Your task to perform on an android device: Search for the best rated kitchen reno kits on Lowes.com Image 0: 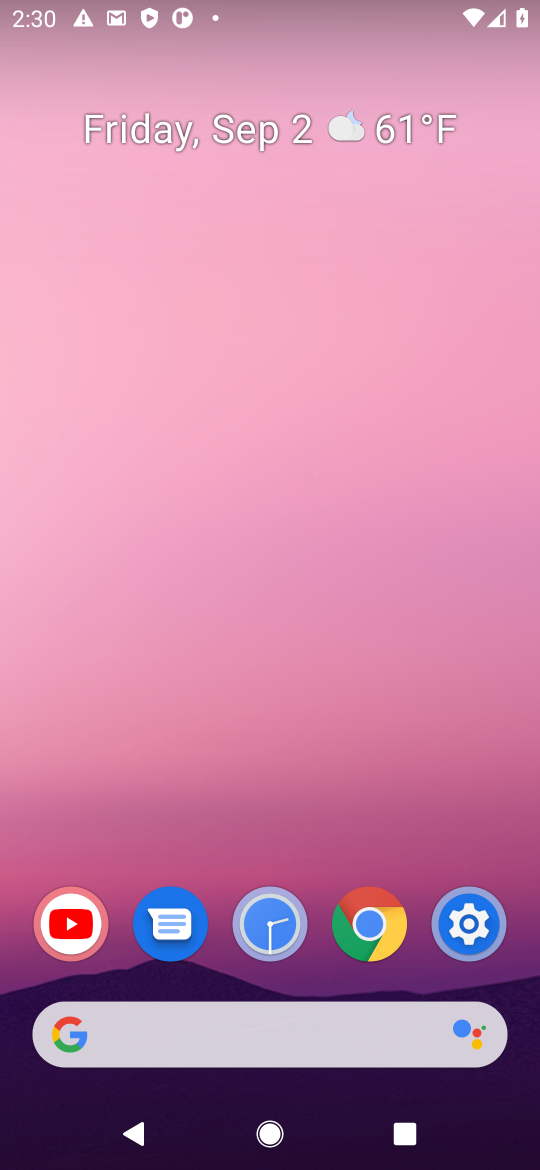
Step 0: click (378, 1037)
Your task to perform on an android device: Search for the best rated kitchen reno kits on Lowes.com Image 1: 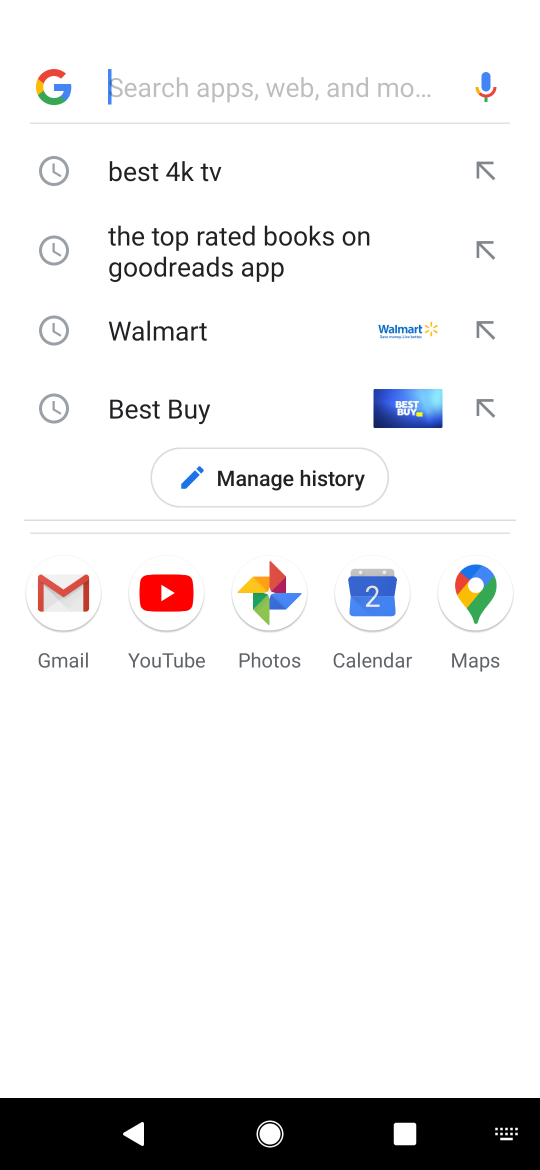
Step 1: press enter
Your task to perform on an android device: Search for the best rated kitchen reno kits on Lowes.com Image 2: 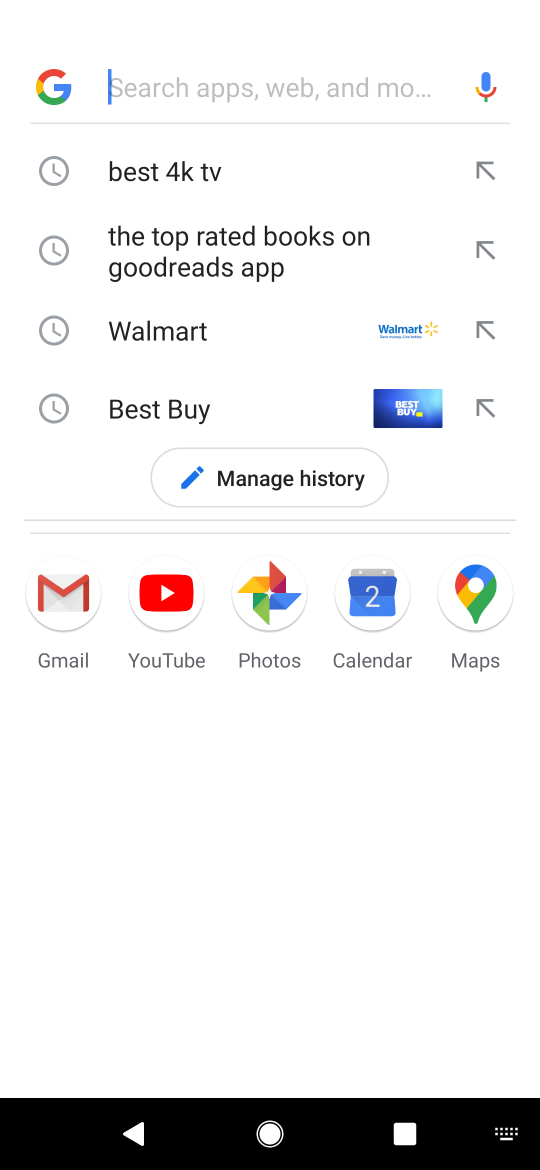
Step 2: type "lowes.com"
Your task to perform on an android device: Search for the best rated kitchen reno kits on Lowes.com Image 3: 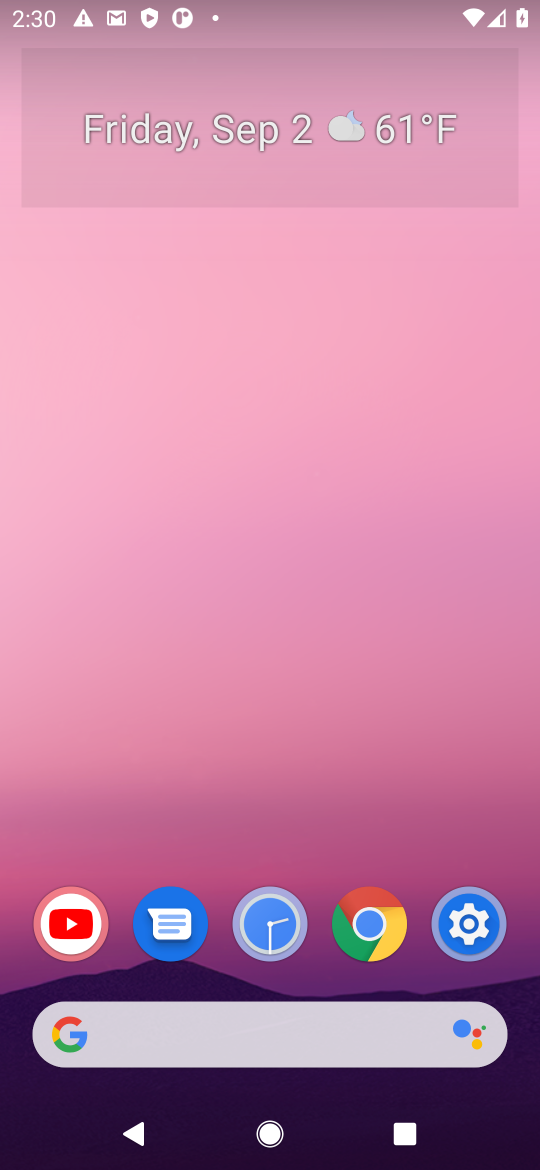
Step 3: click (397, 1046)
Your task to perform on an android device: Search for the best rated kitchen reno kits on Lowes.com Image 4: 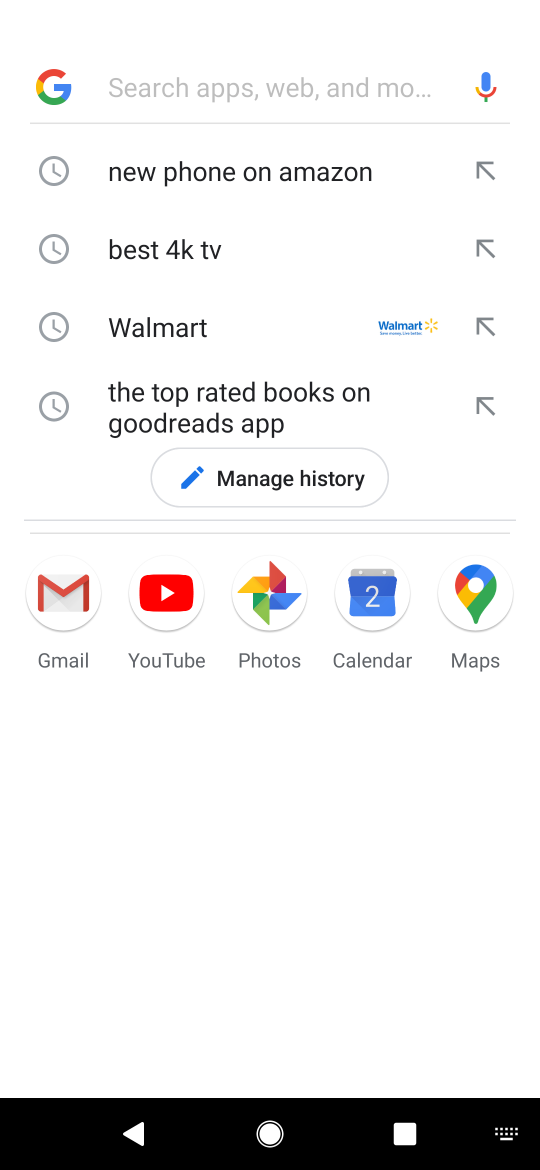
Step 4: press enter
Your task to perform on an android device: Search for the best rated kitchen reno kits on Lowes.com Image 5: 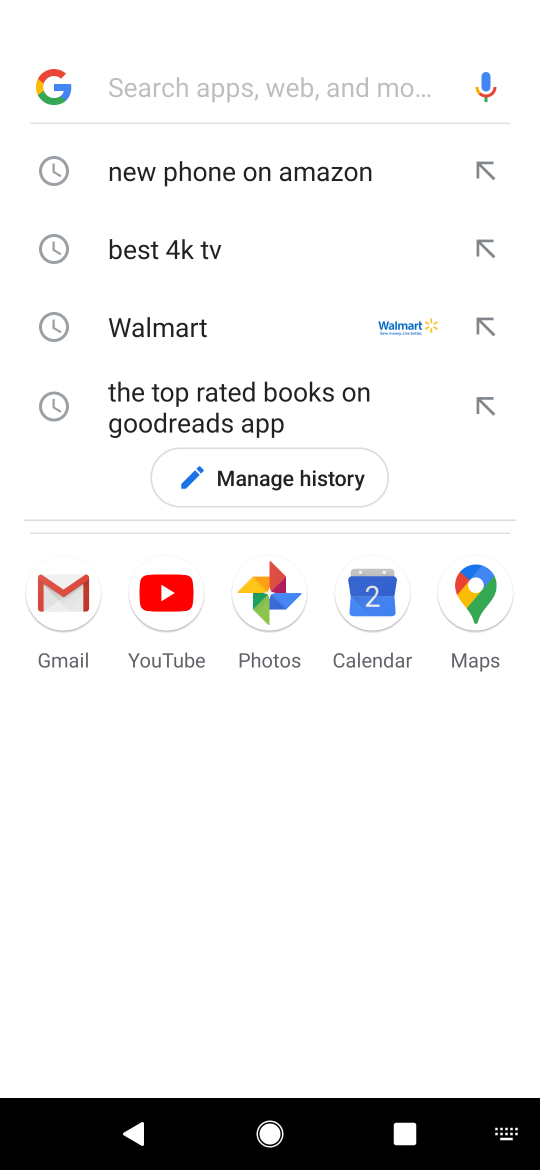
Step 5: type "lowes.com"
Your task to perform on an android device: Search for the best rated kitchen reno kits on Lowes.com Image 6: 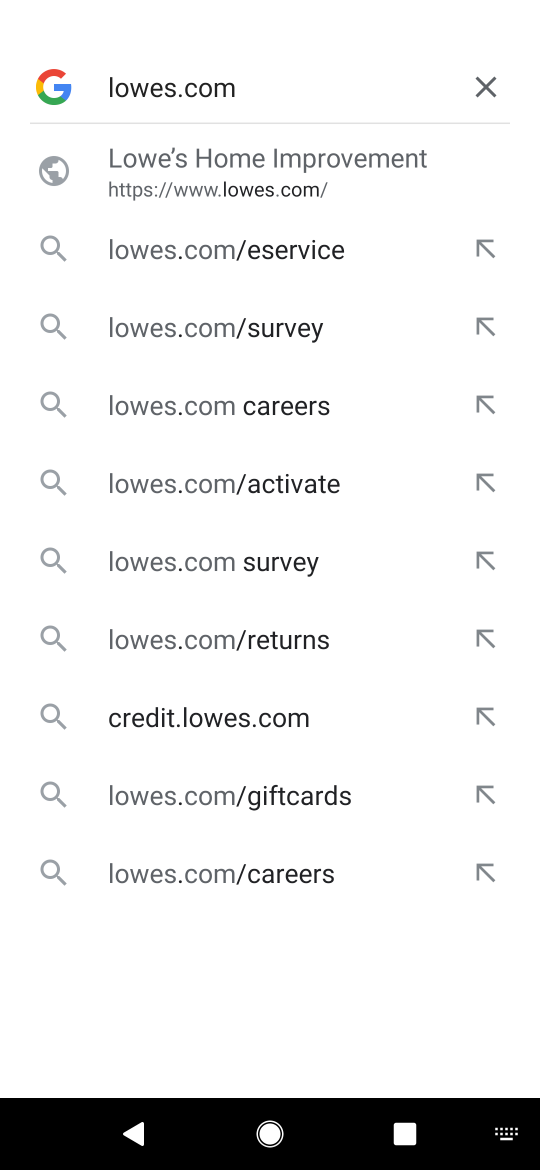
Step 6: click (265, 175)
Your task to perform on an android device: Search for the best rated kitchen reno kits on Lowes.com Image 7: 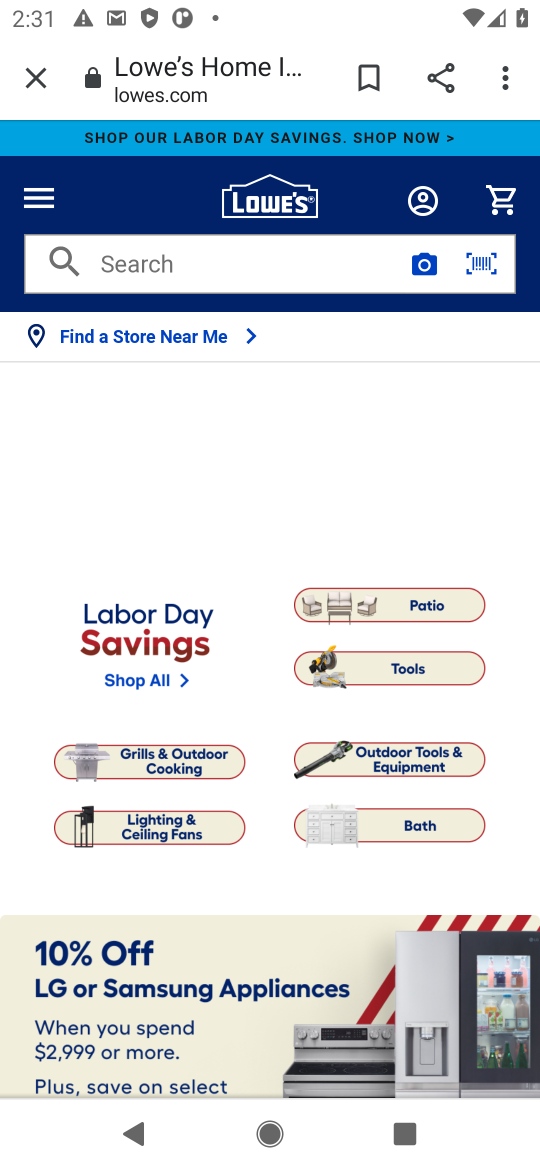
Step 7: click (291, 255)
Your task to perform on an android device: Search for the best rated kitchen reno kits on Lowes.com Image 8: 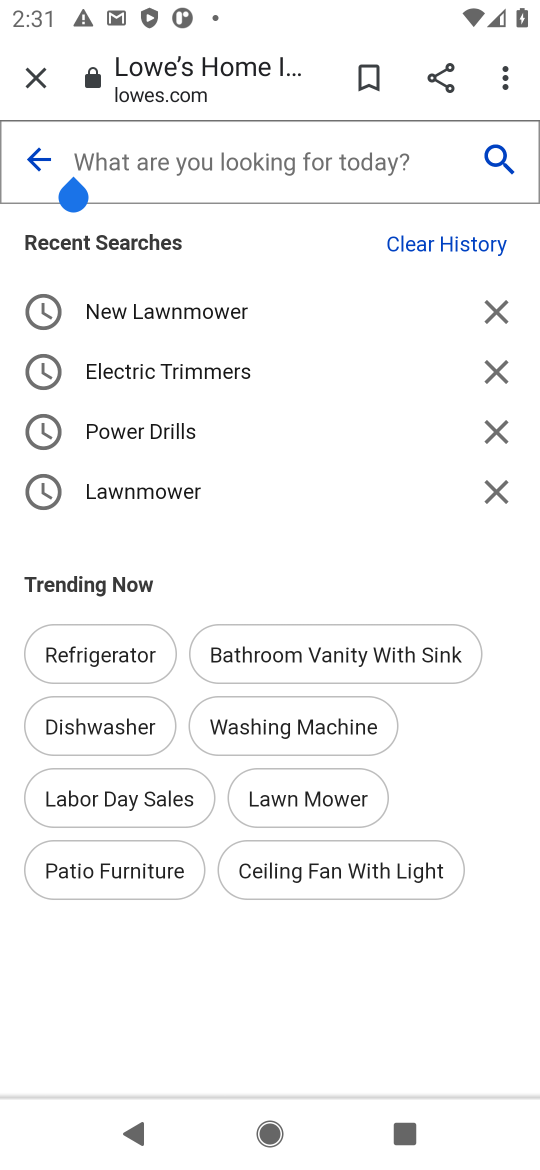
Step 8: type "best rated kitchen reno kits"
Your task to perform on an android device: Search for the best rated kitchen reno kits on Lowes.com Image 9: 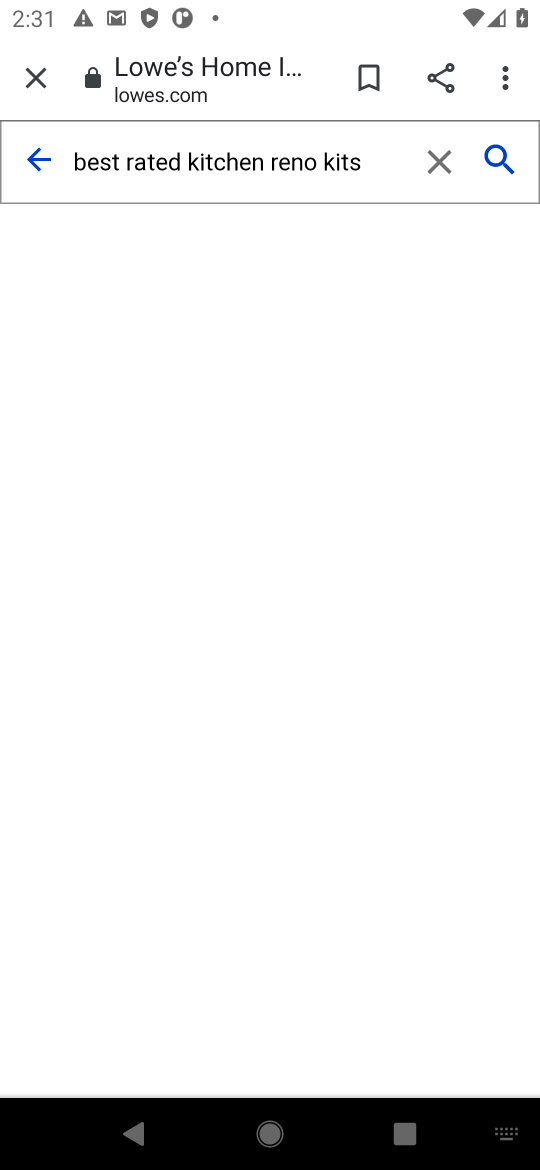
Step 9: click (501, 158)
Your task to perform on an android device: Search for the best rated kitchen reno kits on Lowes.com Image 10: 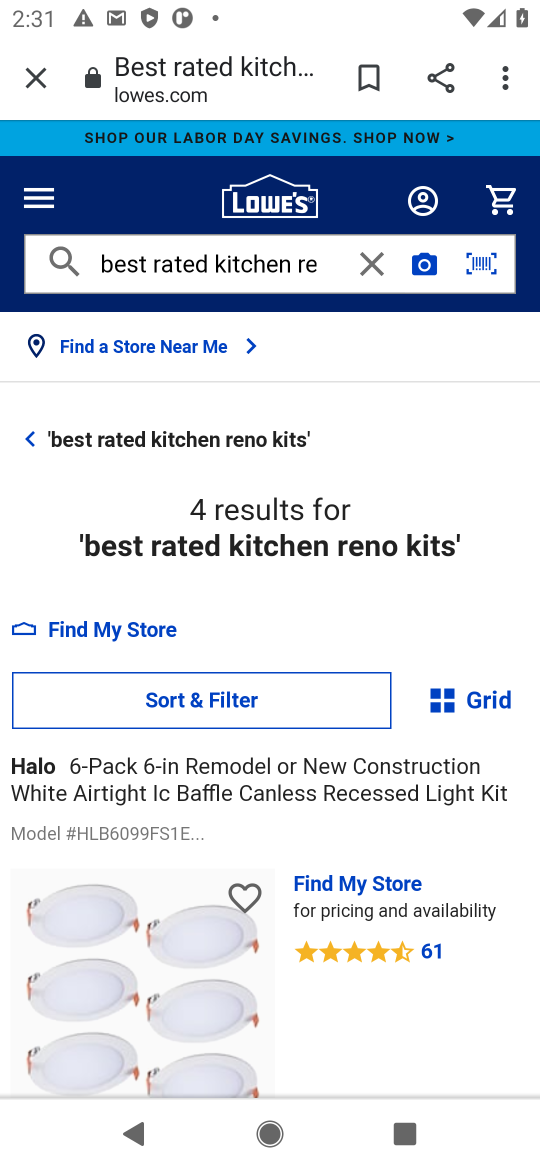
Step 10: task complete